Your task to perform on an android device: change the upload size in google photos Image 0: 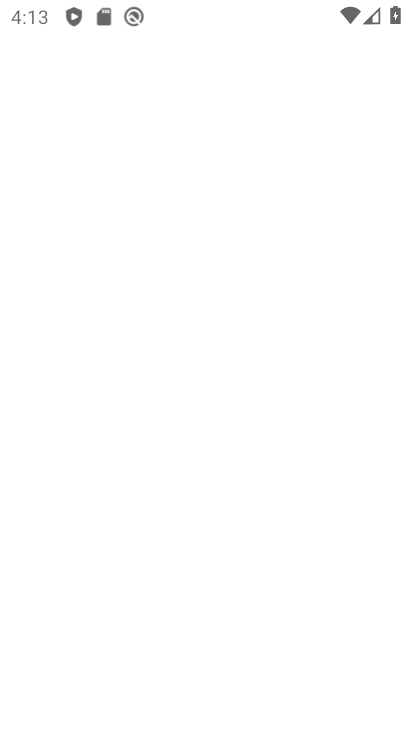
Step 0: press back button
Your task to perform on an android device: change the upload size in google photos Image 1: 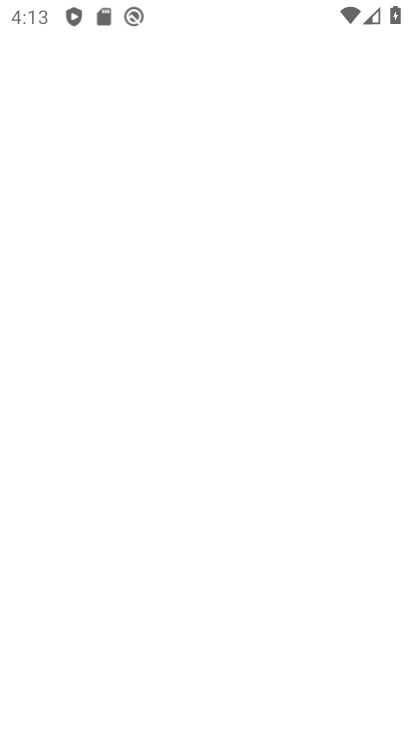
Step 1: press back button
Your task to perform on an android device: change the upload size in google photos Image 2: 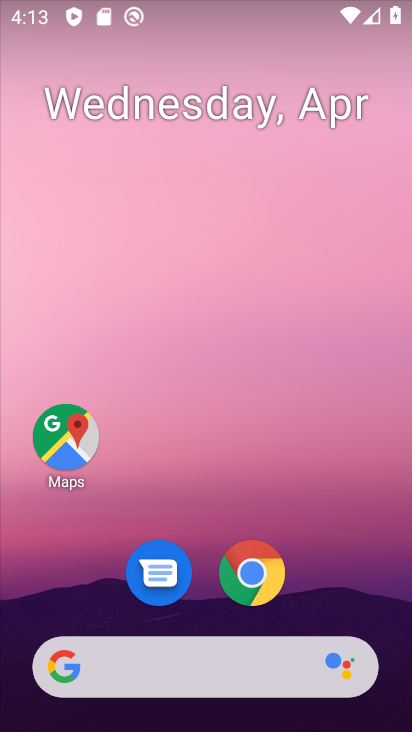
Step 2: drag from (153, 629) to (298, 89)
Your task to perform on an android device: change the upload size in google photos Image 3: 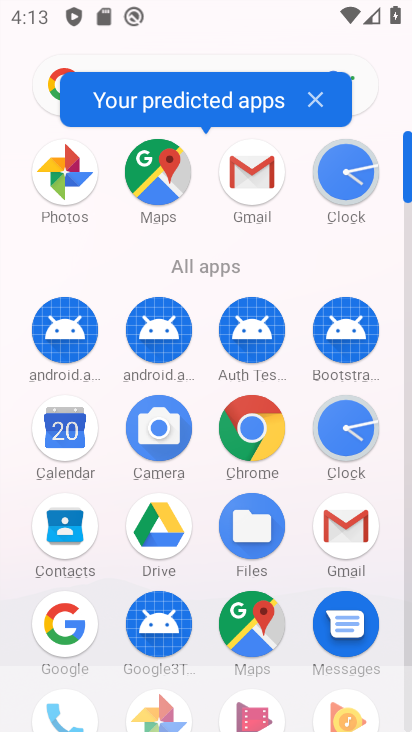
Step 3: drag from (187, 640) to (267, 401)
Your task to perform on an android device: change the upload size in google photos Image 4: 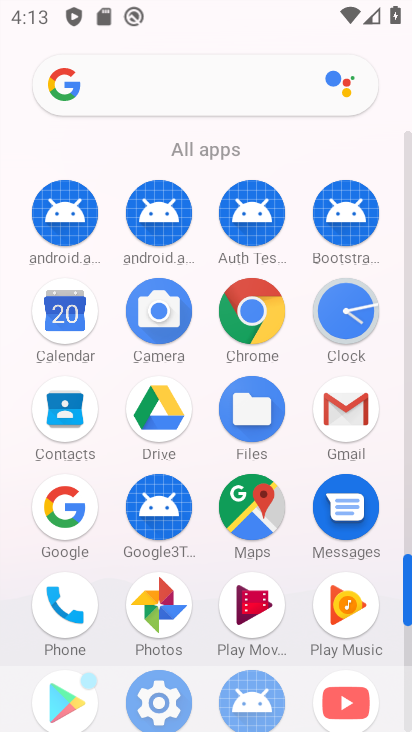
Step 4: click (168, 608)
Your task to perform on an android device: change the upload size in google photos Image 5: 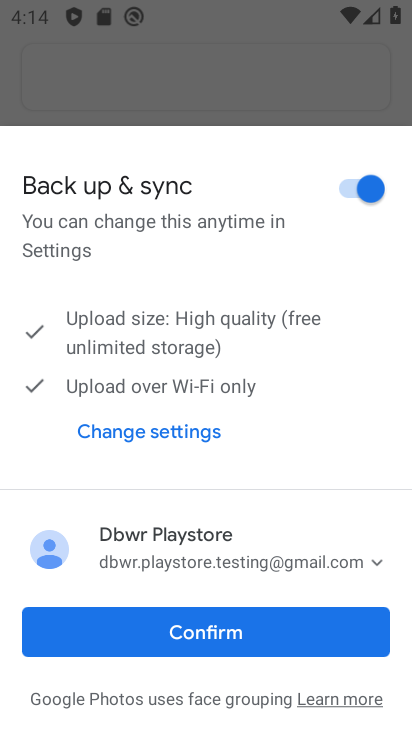
Step 5: click (224, 636)
Your task to perform on an android device: change the upload size in google photos Image 6: 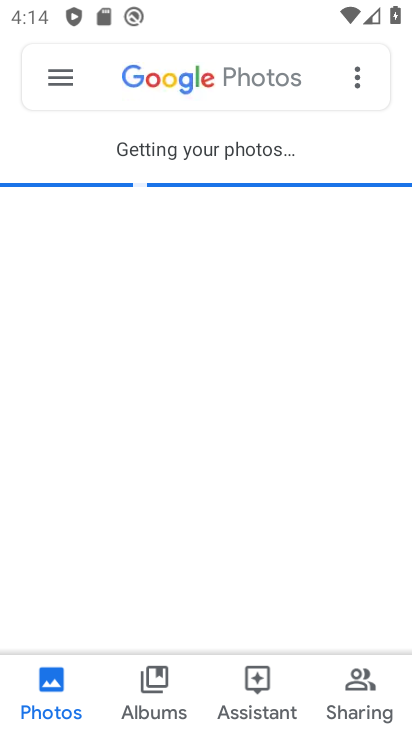
Step 6: click (63, 82)
Your task to perform on an android device: change the upload size in google photos Image 7: 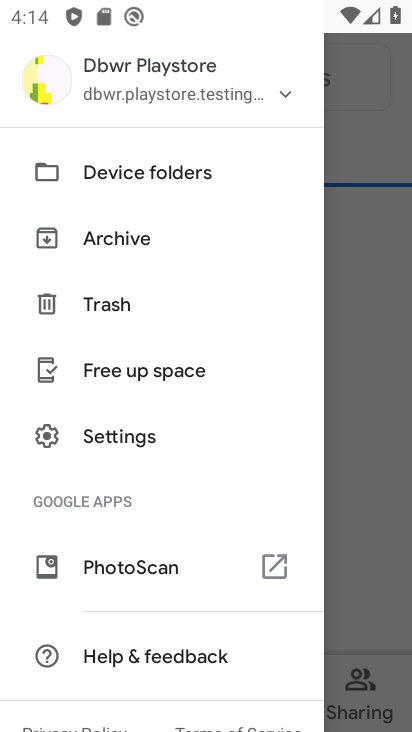
Step 7: click (144, 439)
Your task to perform on an android device: change the upload size in google photos Image 8: 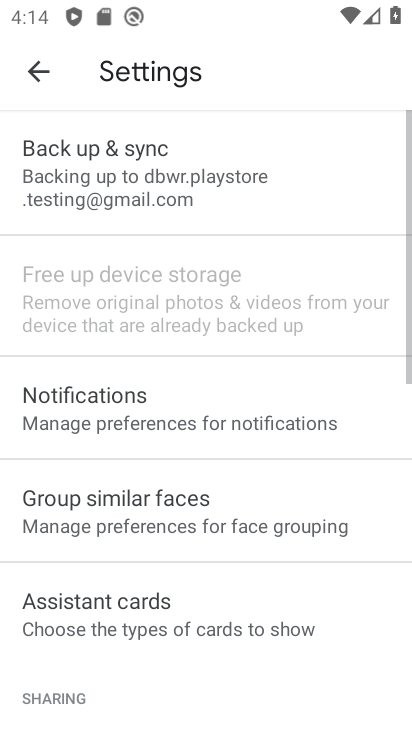
Step 8: click (205, 198)
Your task to perform on an android device: change the upload size in google photos Image 9: 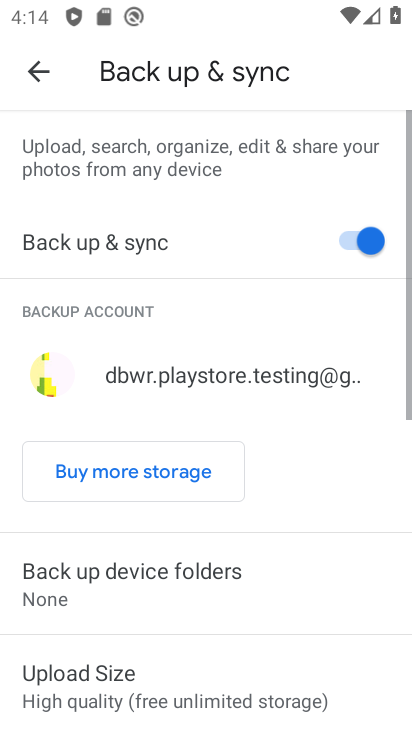
Step 9: click (200, 682)
Your task to perform on an android device: change the upload size in google photos Image 10: 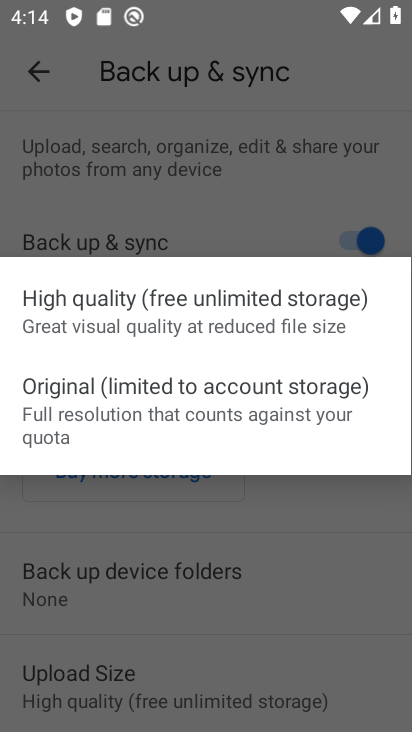
Step 10: click (202, 425)
Your task to perform on an android device: change the upload size in google photos Image 11: 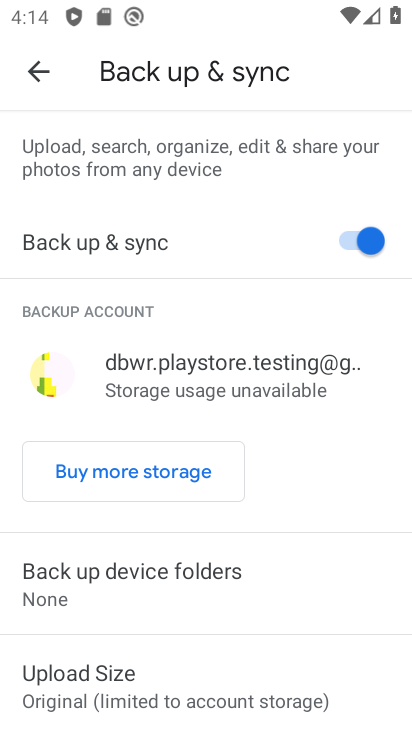
Step 11: task complete